Your task to perform on an android device: Go to Yahoo.com Image 0: 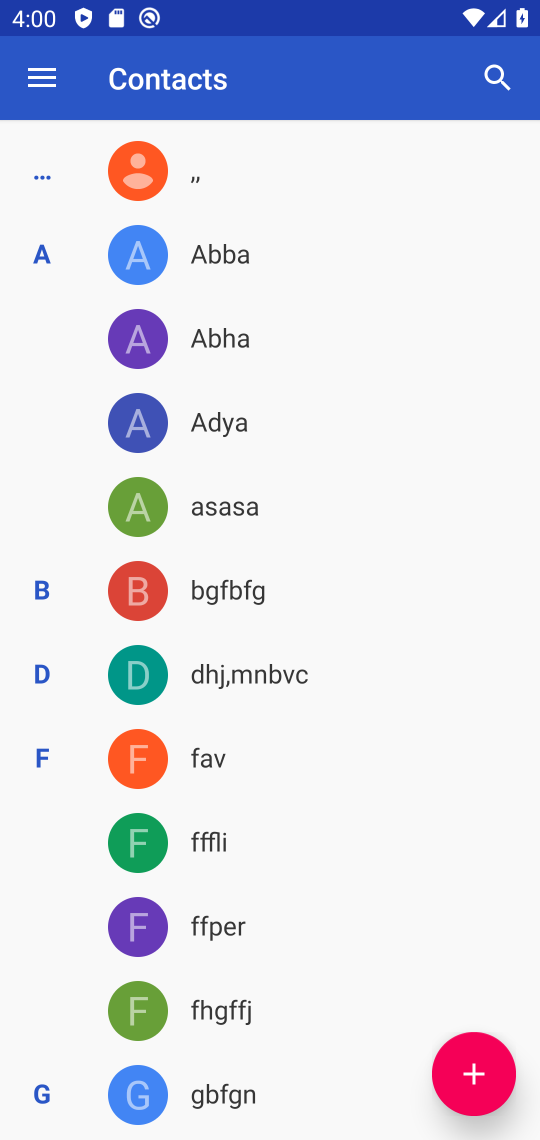
Step 0: press home button
Your task to perform on an android device: Go to Yahoo.com Image 1: 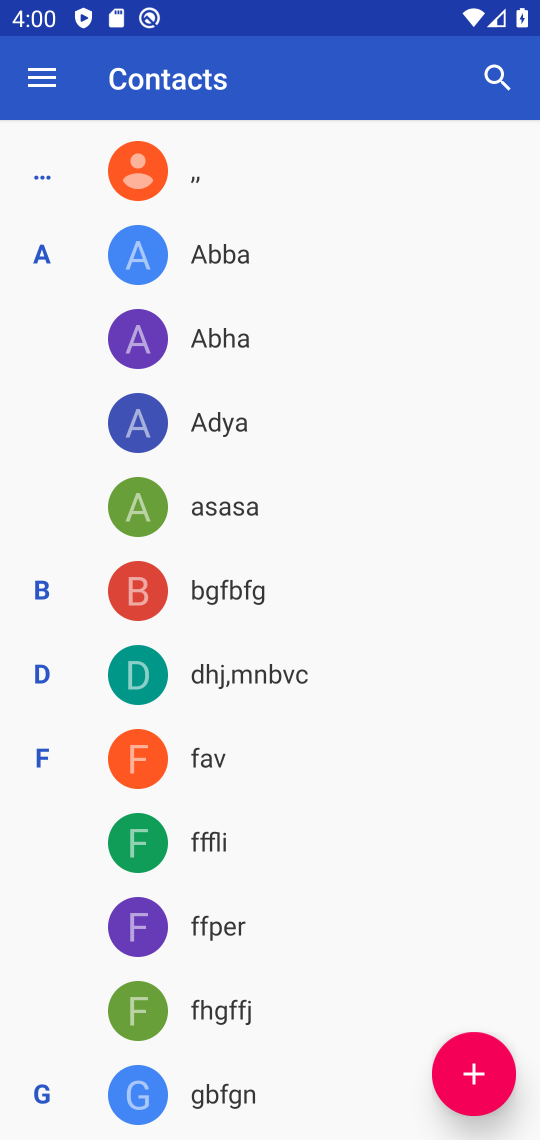
Step 1: press home button
Your task to perform on an android device: Go to Yahoo.com Image 2: 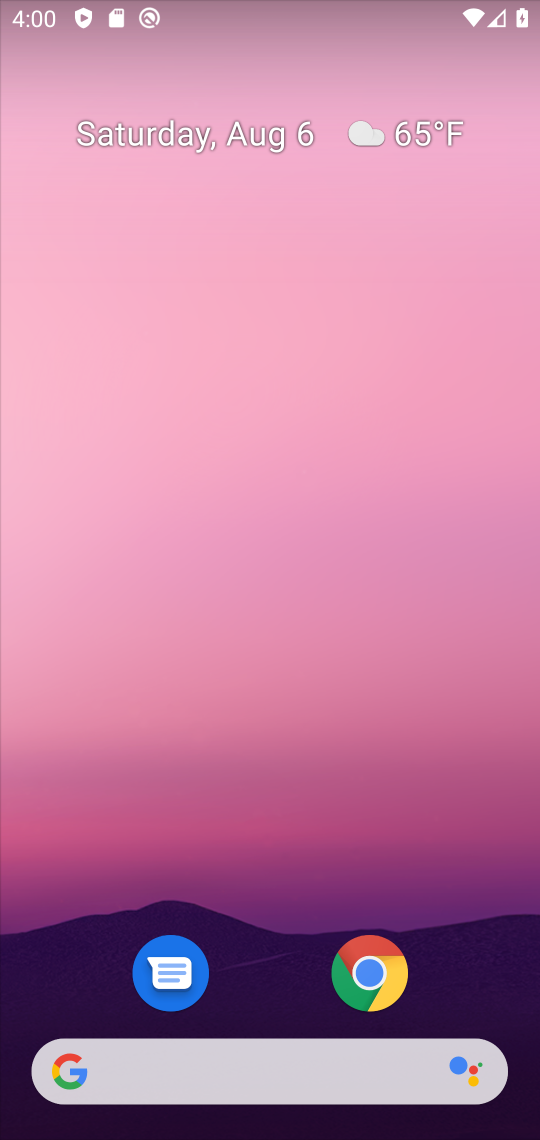
Step 2: drag from (338, 690) to (377, 139)
Your task to perform on an android device: Go to Yahoo.com Image 3: 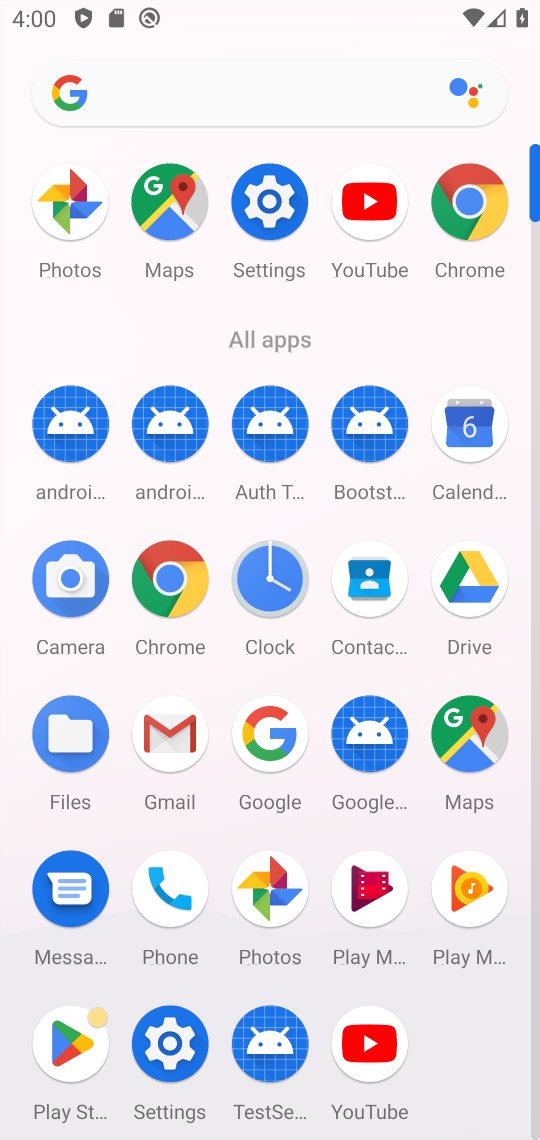
Step 3: click (475, 202)
Your task to perform on an android device: Go to Yahoo.com Image 4: 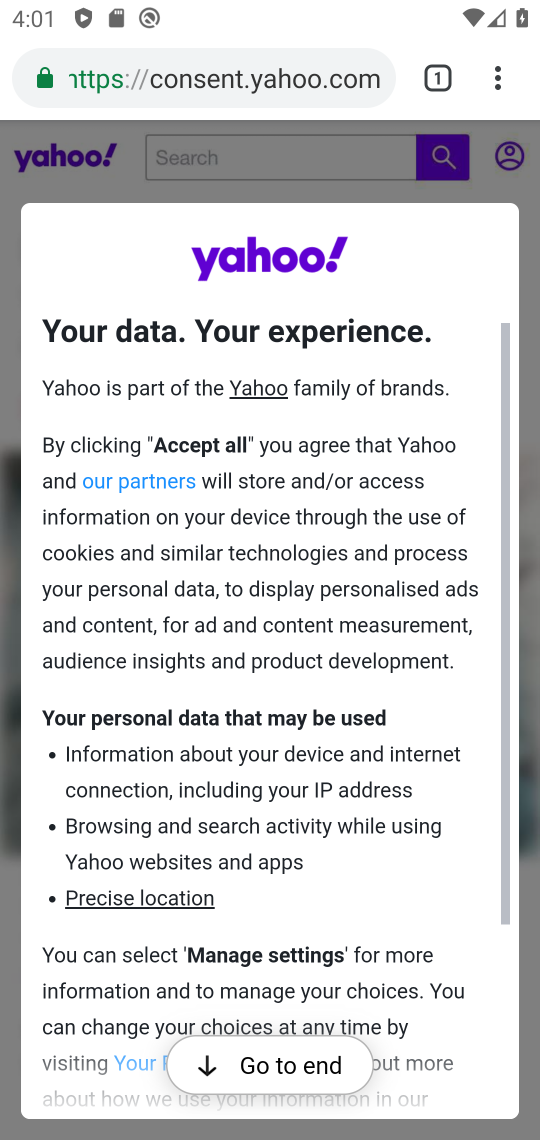
Step 4: task complete